Your task to perform on an android device: Open the map Image 0: 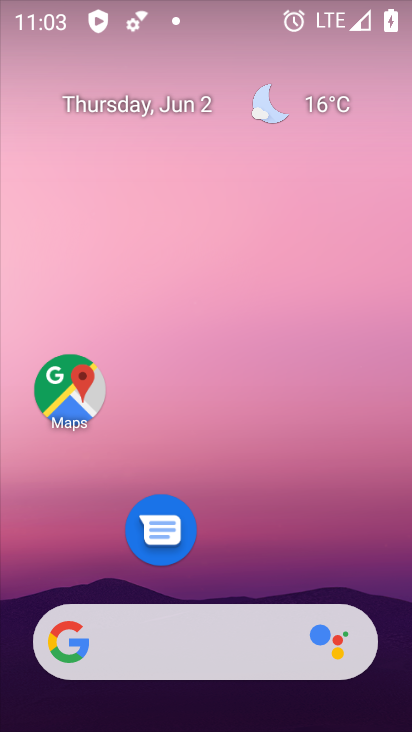
Step 0: drag from (272, 708) to (168, 164)
Your task to perform on an android device: Open the map Image 1: 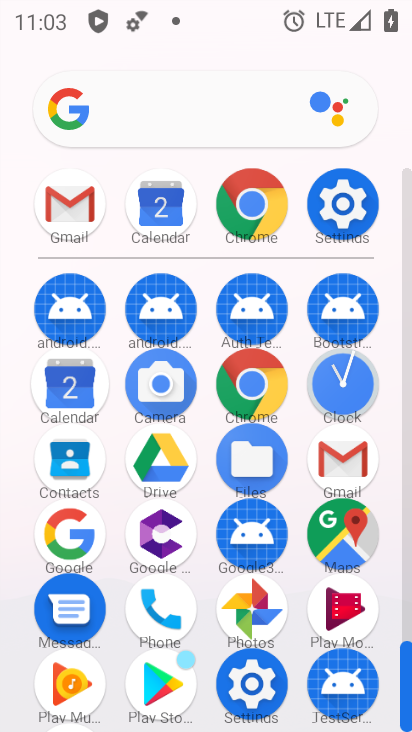
Step 1: click (353, 537)
Your task to perform on an android device: Open the map Image 2: 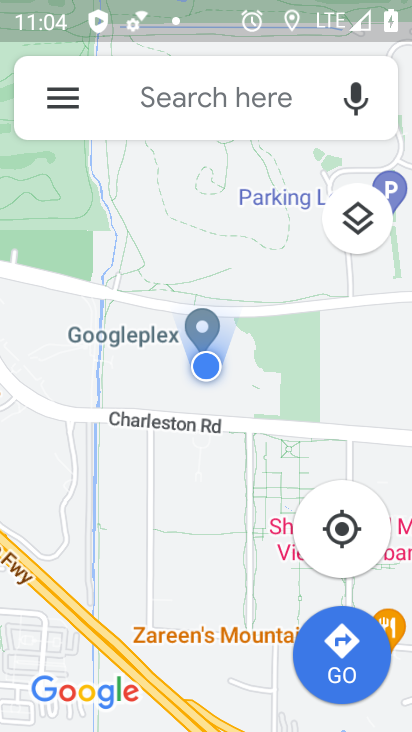
Step 2: task complete